Your task to perform on an android device: Open my contact list Image 0: 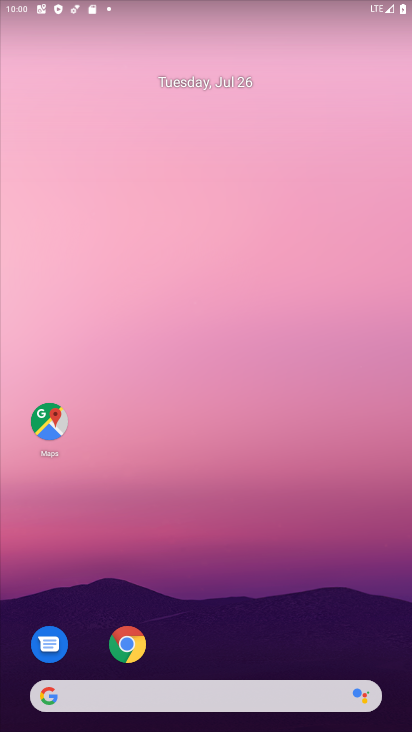
Step 0: drag from (280, 643) to (293, 4)
Your task to perform on an android device: Open my contact list Image 1: 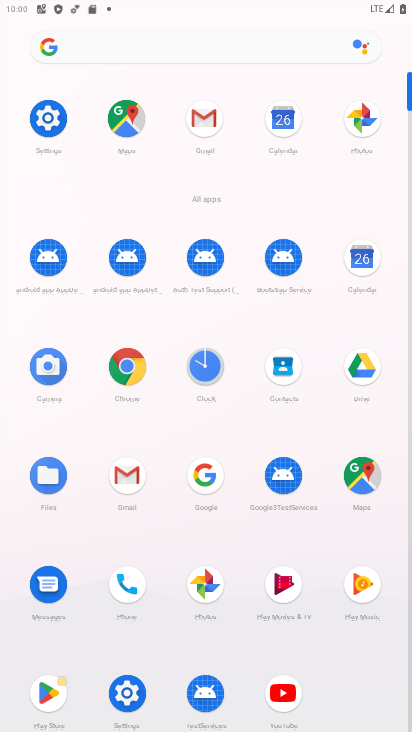
Step 1: click (281, 367)
Your task to perform on an android device: Open my contact list Image 2: 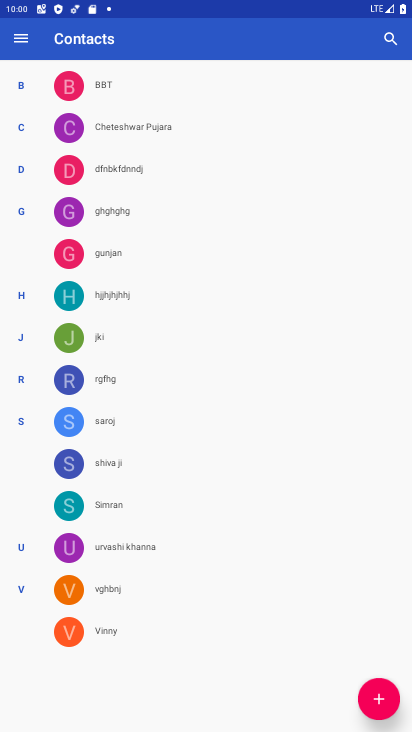
Step 2: task complete